Your task to perform on an android device: turn on bluetooth scan Image 0: 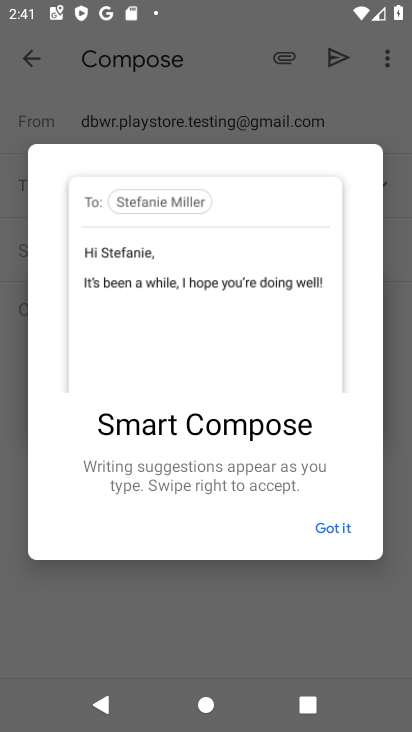
Step 0: press home button
Your task to perform on an android device: turn on bluetooth scan Image 1: 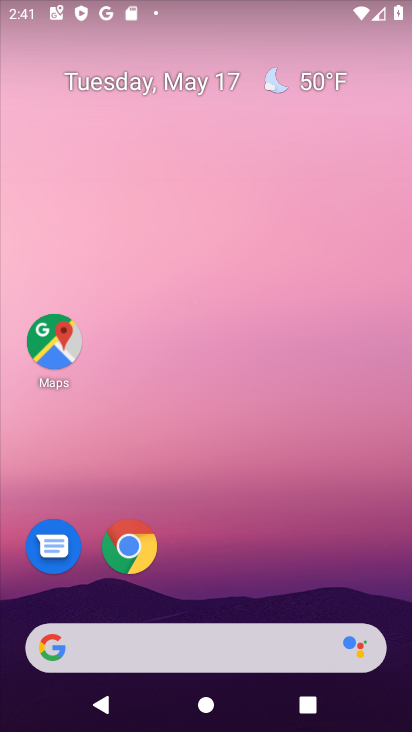
Step 1: drag from (207, 583) to (237, 13)
Your task to perform on an android device: turn on bluetooth scan Image 2: 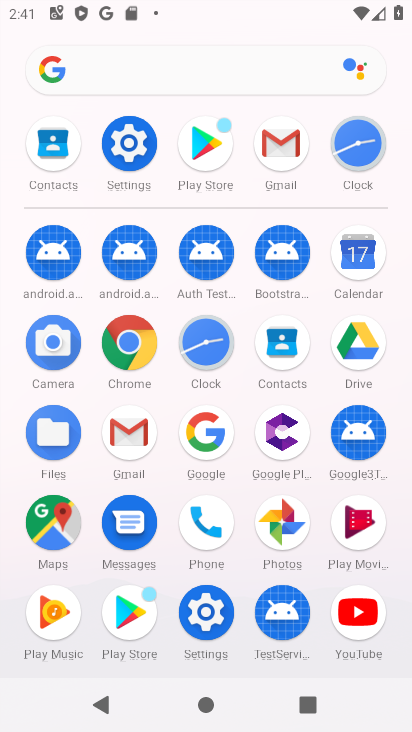
Step 2: click (212, 636)
Your task to perform on an android device: turn on bluetooth scan Image 3: 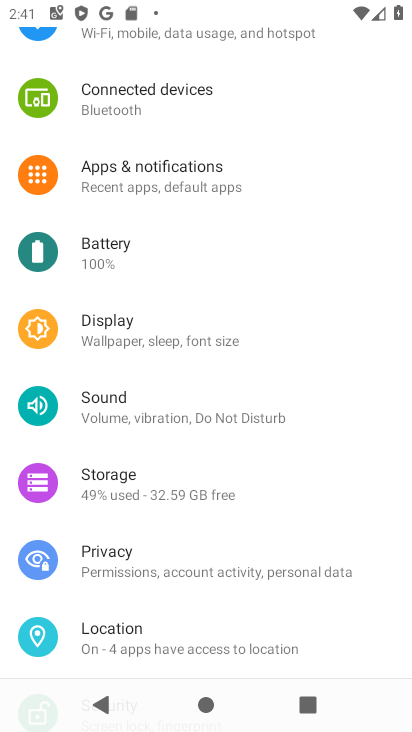
Step 3: click (151, 630)
Your task to perform on an android device: turn on bluetooth scan Image 4: 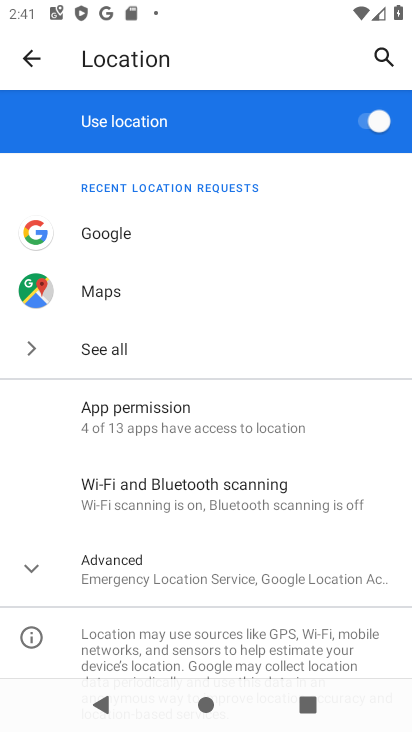
Step 4: click (173, 500)
Your task to perform on an android device: turn on bluetooth scan Image 5: 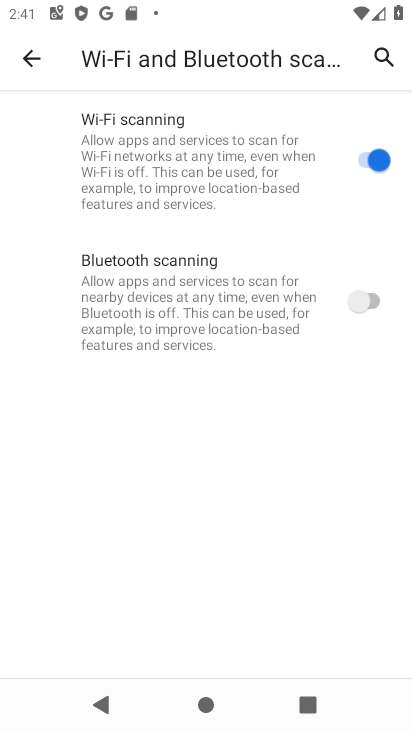
Step 5: click (382, 297)
Your task to perform on an android device: turn on bluetooth scan Image 6: 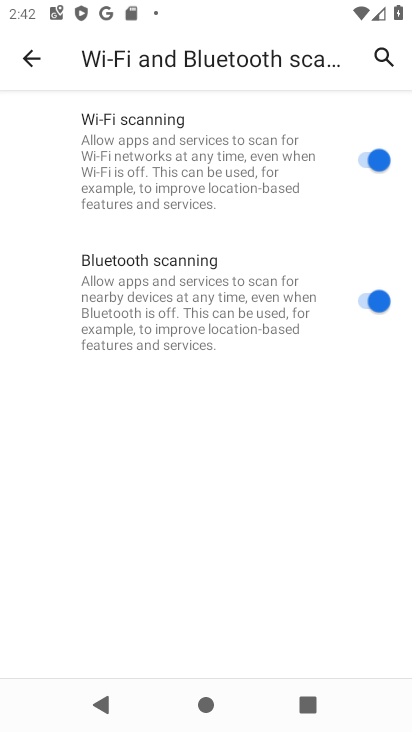
Step 6: task complete